Your task to perform on an android device: Go to battery settings Image 0: 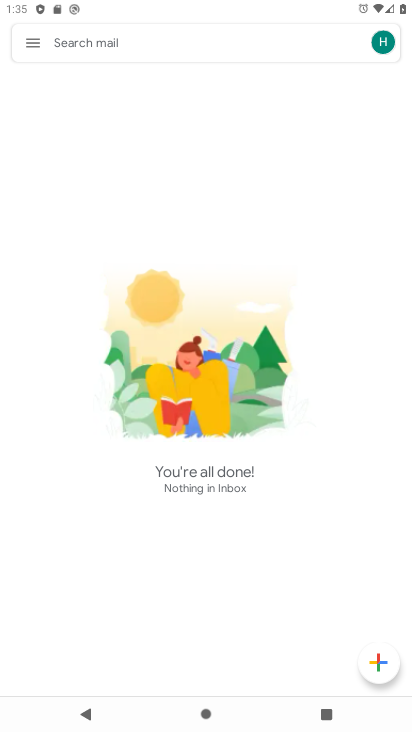
Step 0: press home button
Your task to perform on an android device: Go to battery settings Image 1: 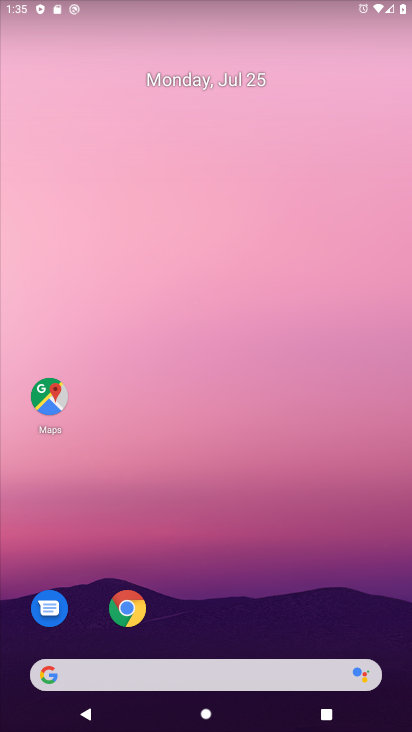
Step 1: drag from (301, 508) to (221, 0)
Your task to perform on an android device: Go to battery settings Image 2: 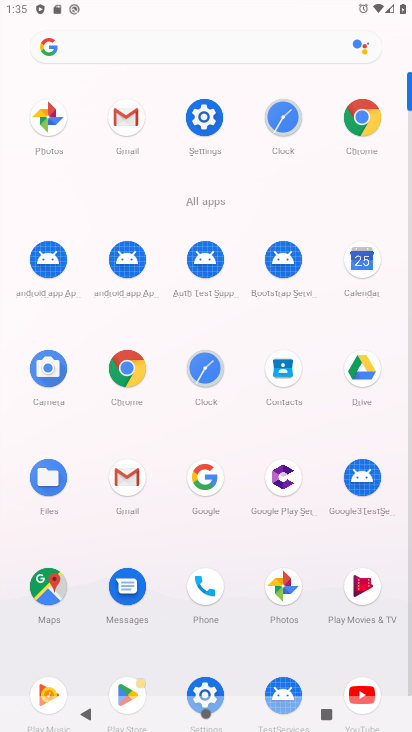
Step 2: click (204, 110)
Your task to perform on an android device: Go to battery settings Image 3: 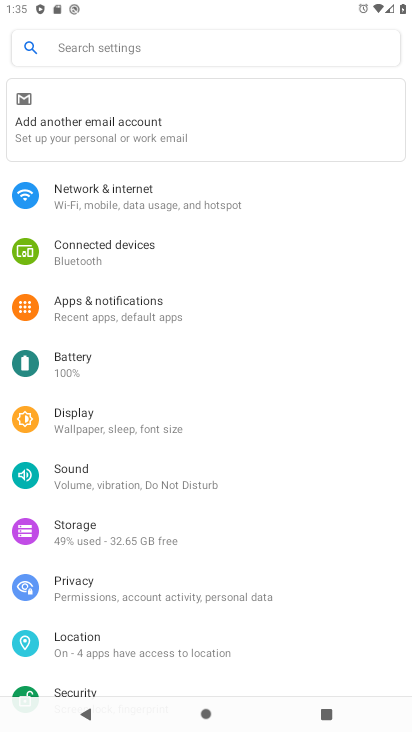
Step 3: click (85, 373)
Your task to perform on an android device: Go to battery settings Image 4: 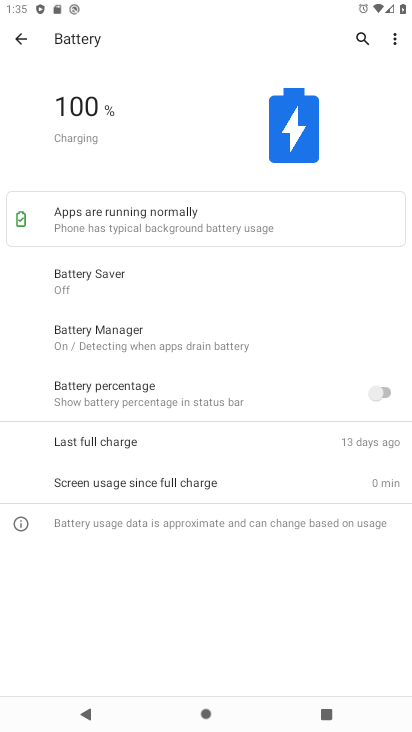
Step 4: task complete